Your task to perform on an android device: check google app version Image 0: 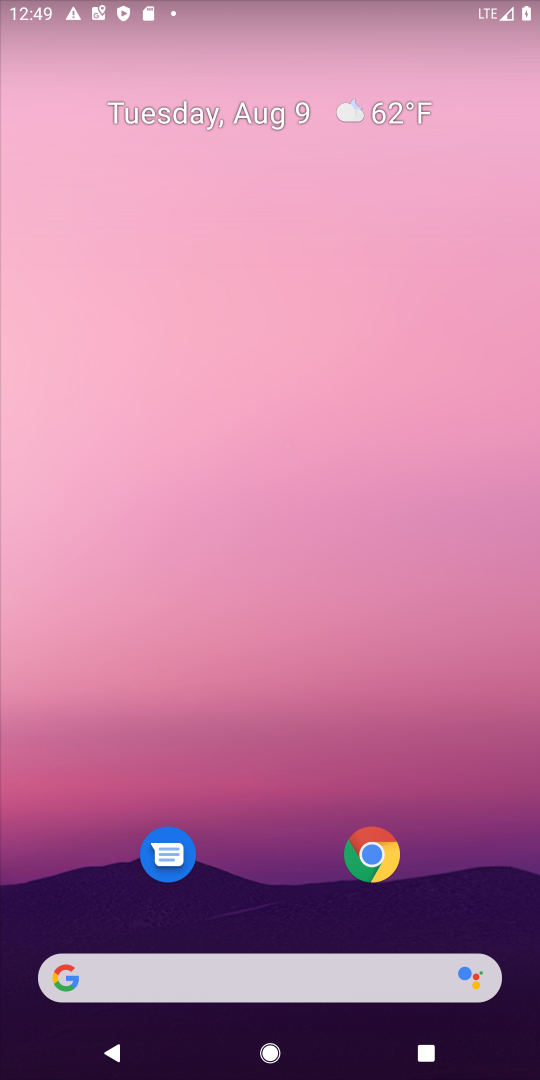
Step 0: drag from (247, 932) to (378, 173)
Your task to perform on an android device: check google app version Image 1: 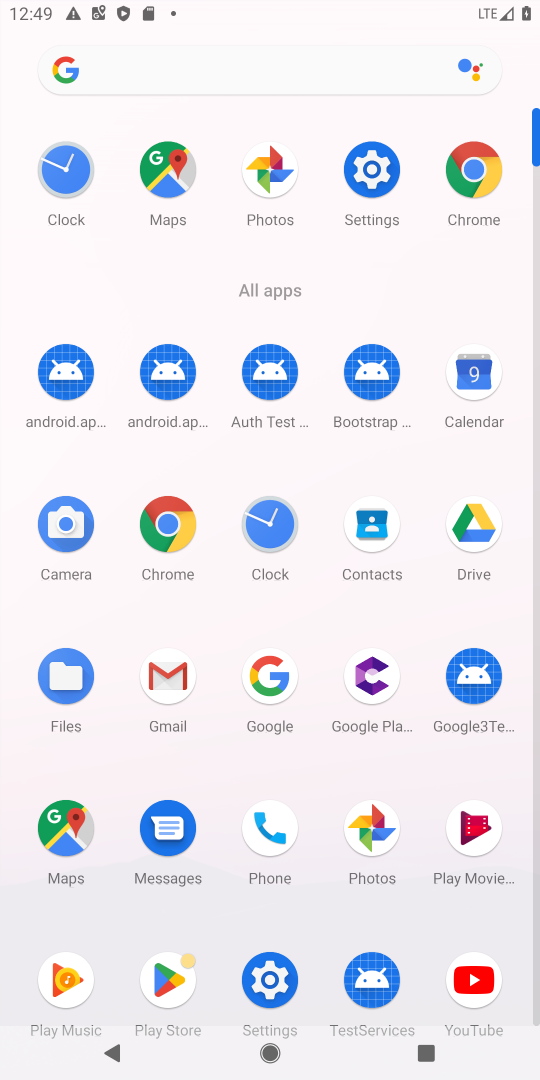
Step 1: click (262, 695)
Your task to perform on an android device: check google app version Image 2: 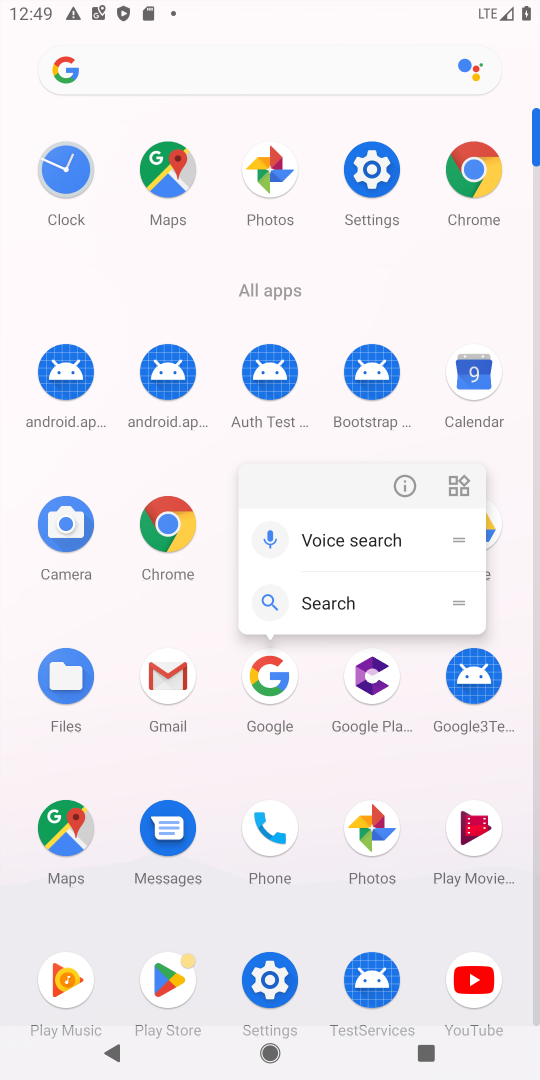
Step 2: click (402, 481)
Your task to perform on an android device: check google app version Image 3: 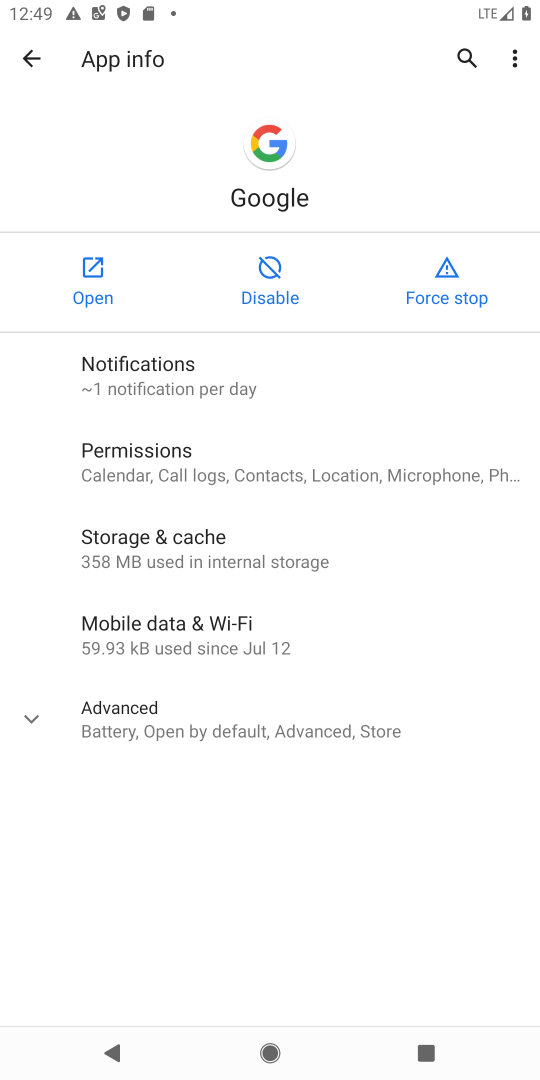
Step 3: click (130, 727)
Your task to perform on an android device: check google app version Image 4: 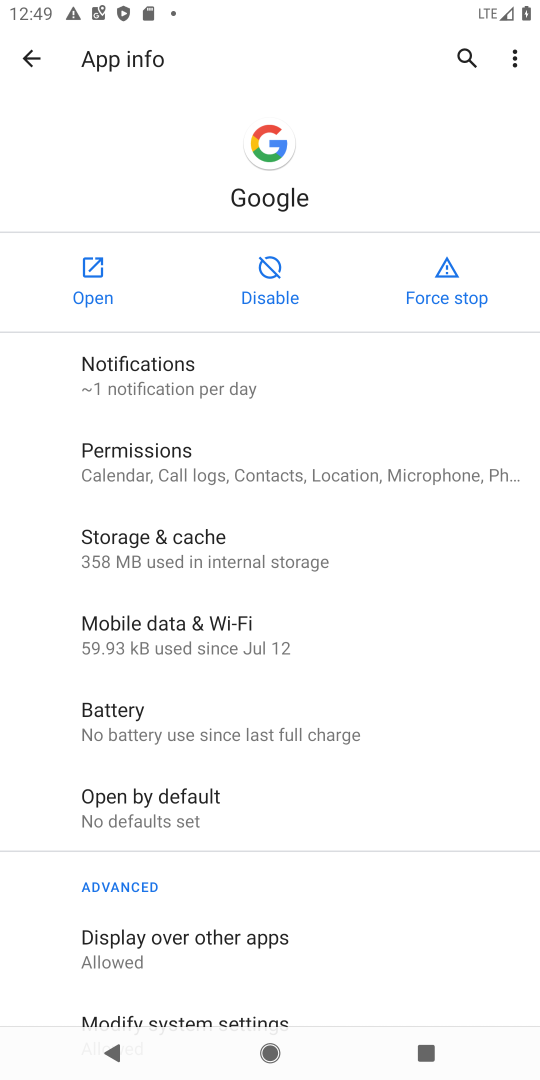
Step 4: task complete